Your task to perform on an android device: Search for "acer nitro" on costco, select the first entry, add it to the cart, then select checkout. Image 0: 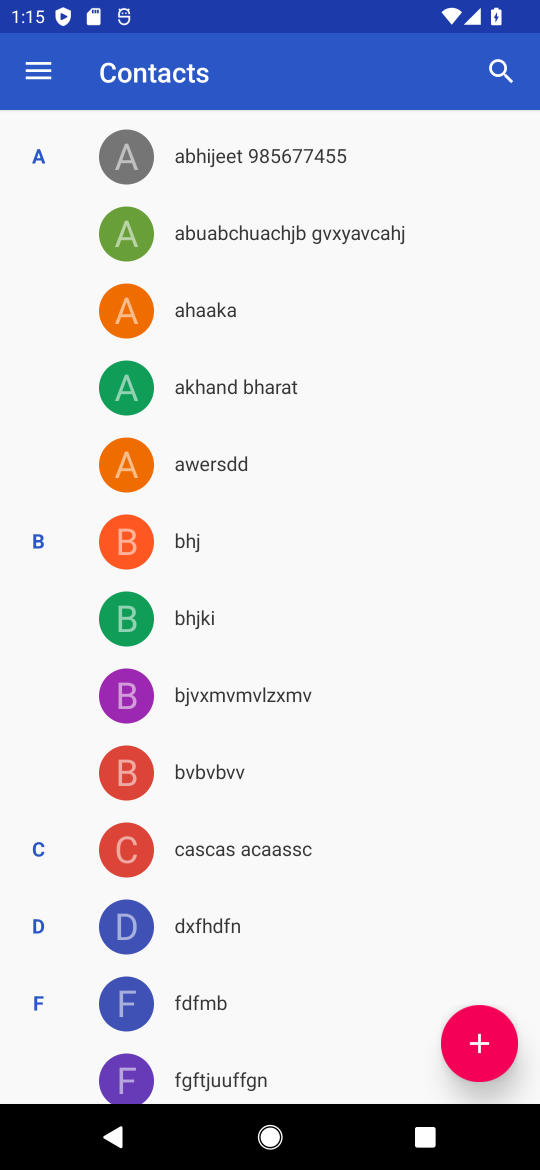
Step 0: press home button
Your task to perform on an android device: Search for "acer nitro" on costco, select the first entry, add it to the cart, then select checkout. Image 1: 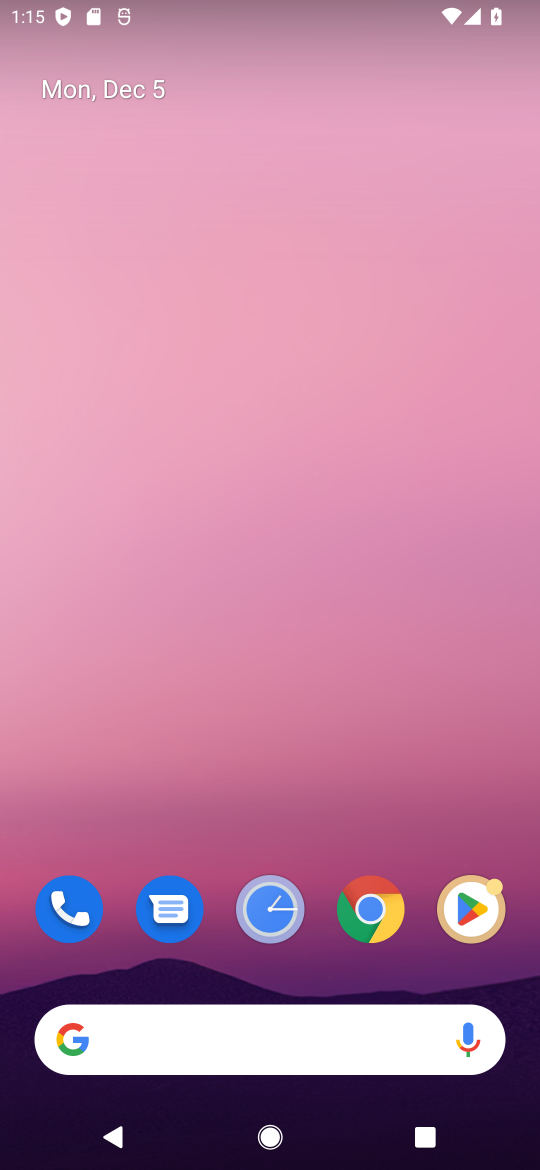
Step 1: drag from (197, 993) to (233, 212)
Your task to perform on an android device: Search for "acer nitro" on costco, select the first entry, add it to the cart, then select checkout. Image 2: 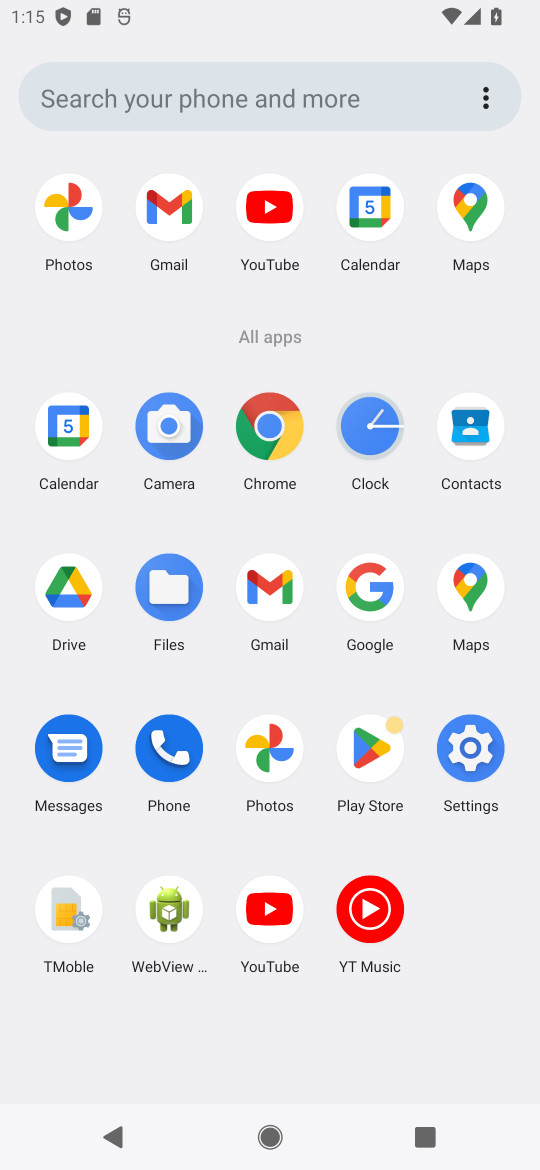
Step 2: click (375, 567)
Your task to perform on an android device: Search for "acer nitro" on costco, select the first entry, add it to the cart, then select checkout. Image 3: 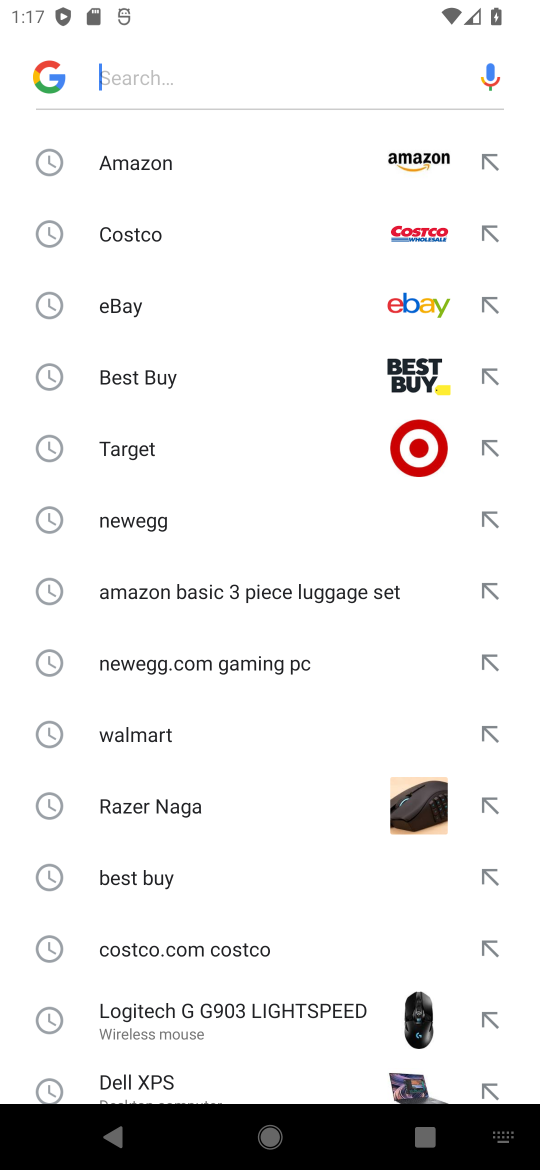
Step 3: click (492, 237)
Your task to perform on an android device: Search for "acer nitro" on costco, select the first entry, add it to the cart, then select checkout. Image 4: 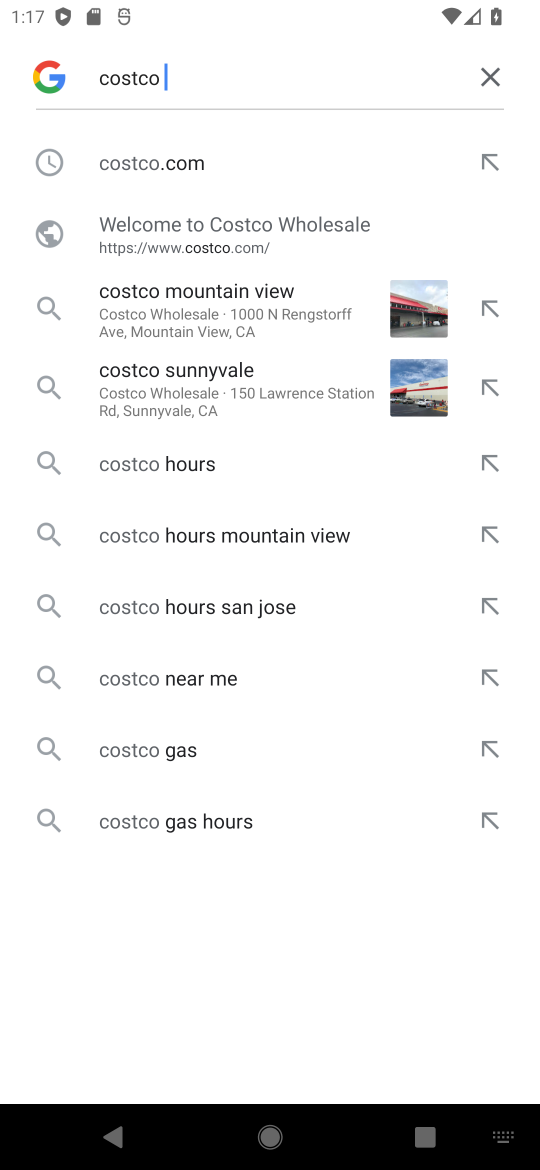
Step 4: click (181, 160)
Your task to perform on an android device: Search for "acer nitro" on costco, select the first entry, add it to the cart, then select checkout. Image 5: 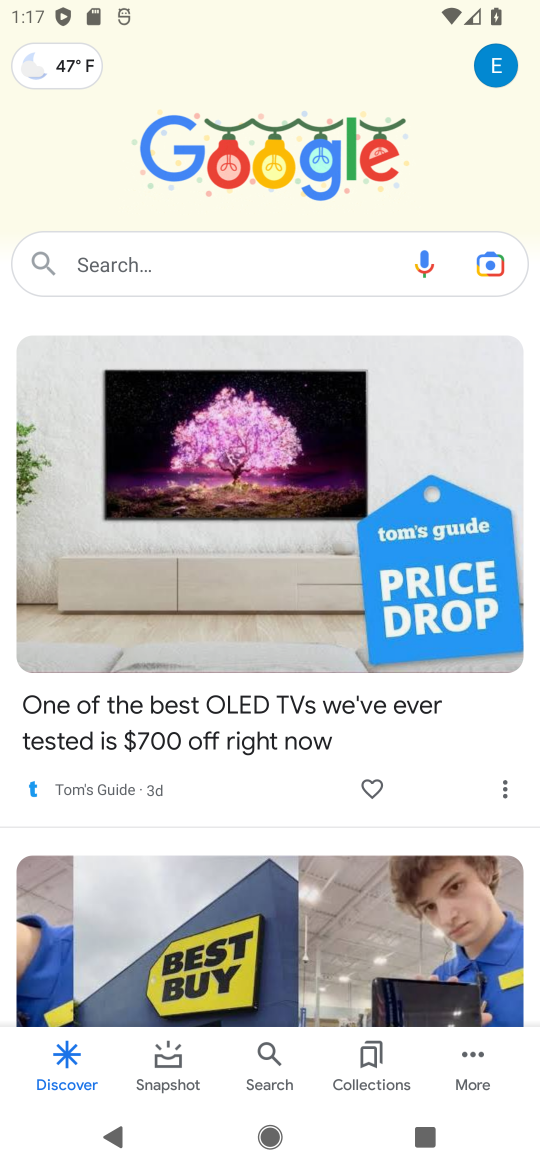
Step 5: click (104, 261)
Your task to perform on an android device: Search for "acer nitro" on costco, select the first entry, add it to the cart, then select checkout. Image 6: 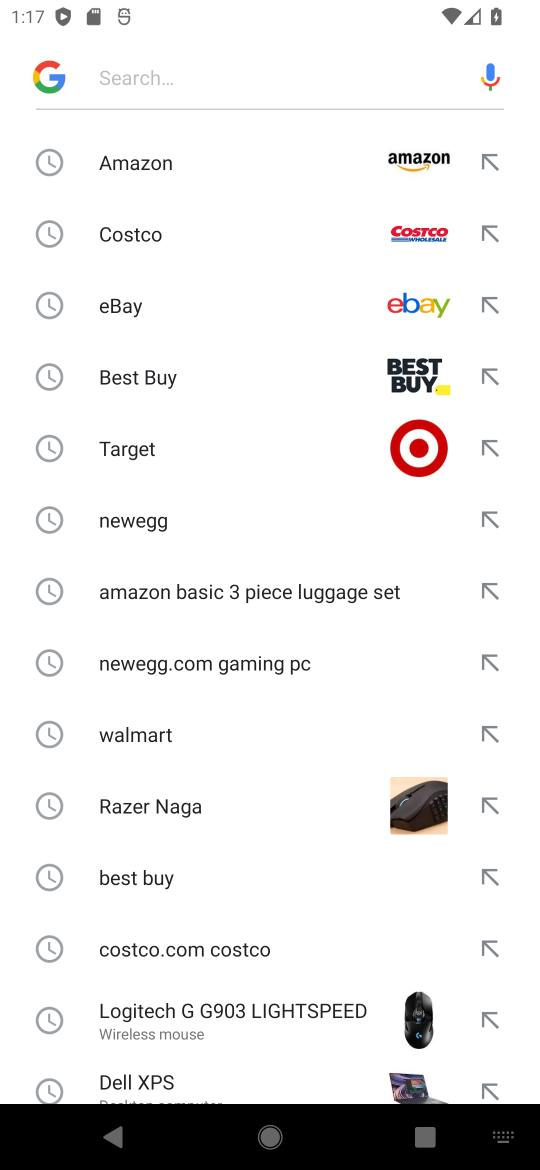
Step 6: click (499, 232)
Your task to perform on an android device: Search for "acer nitro" on costco, select the first entry, add it to the cart, then select checkout. Image 7: 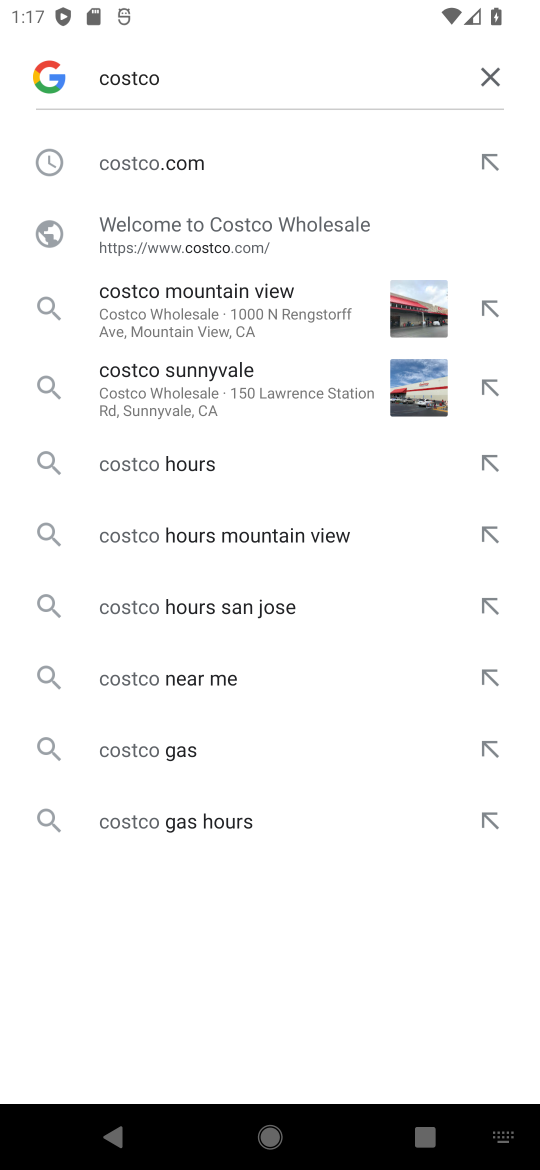
Step 7: click (216, 224)
Your task to perform on an android device: Search for "acer nitro" on costco, select the first entry, add it to the cart, then select checkout. Image 8: 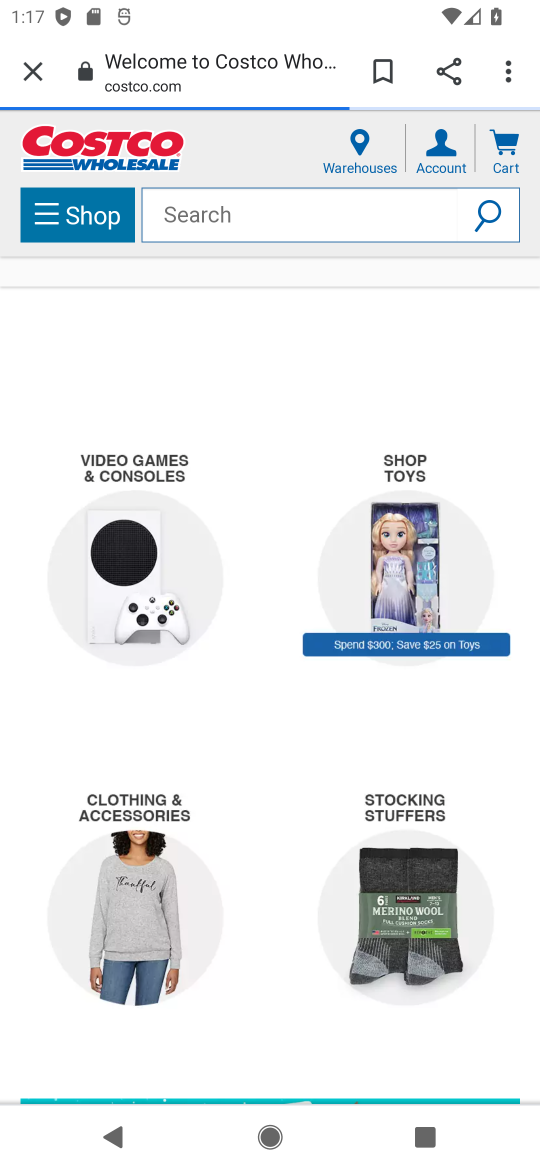
Step 8: click (219, 214)
Your task to perform on an android device: Search for "acer nitro" on costco, select the first entry, add it to the cart, then select checkout. Image 9: 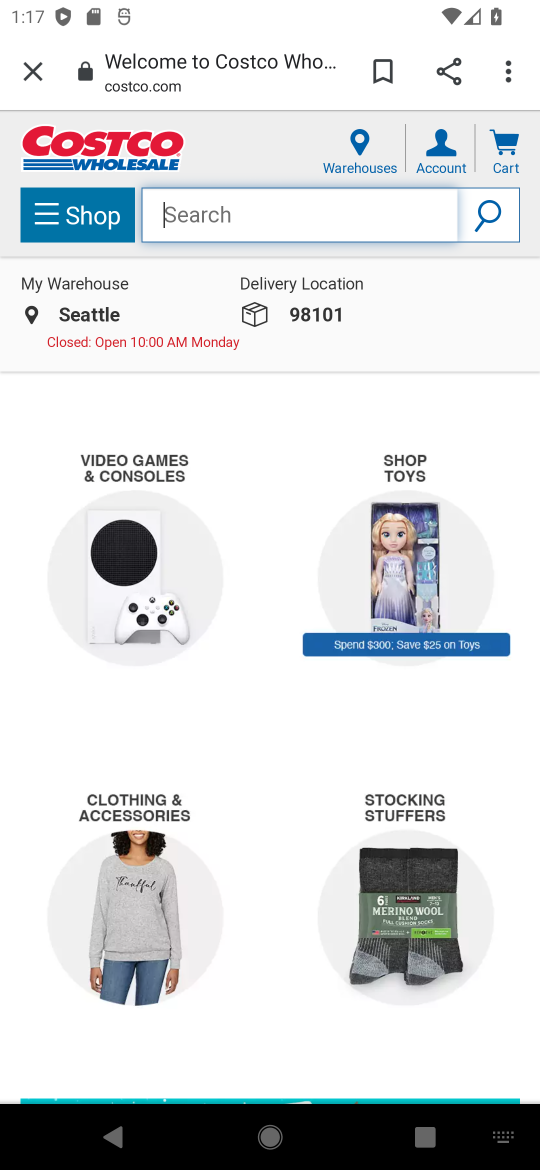
Step 9: type "acer nitro"
Your task to perform on an android device: Search for "acer nitro" on costco, select the first entry, add it to the cart, then select checkout. Image 10: 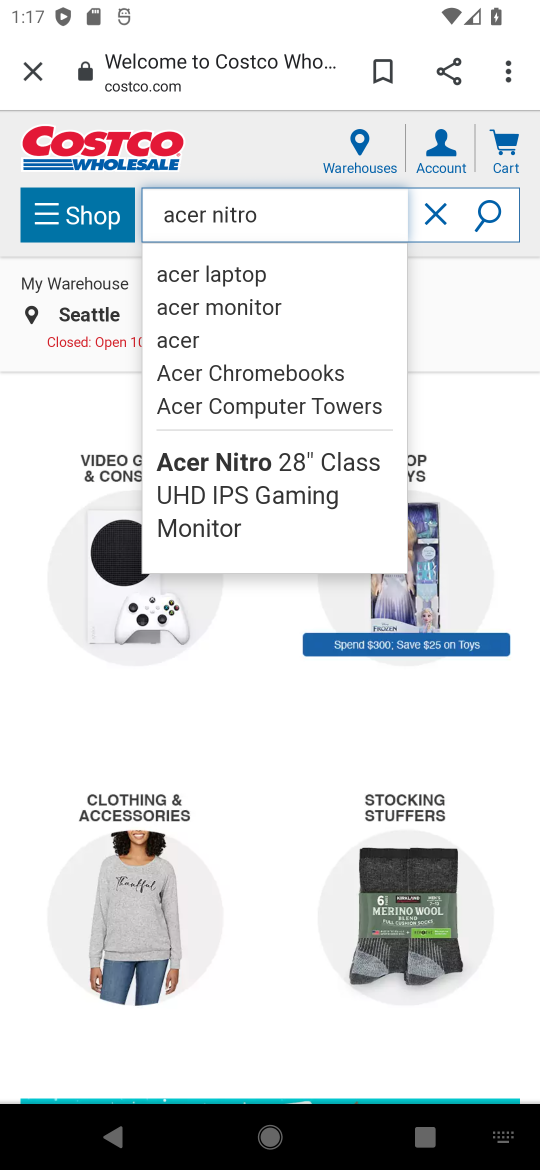
Step 10: click (482, 231)
Your task to perform on an android device: Search for "acer nitro" on costco, select the first entry, add it to the cart, then select checkout. Image 11: 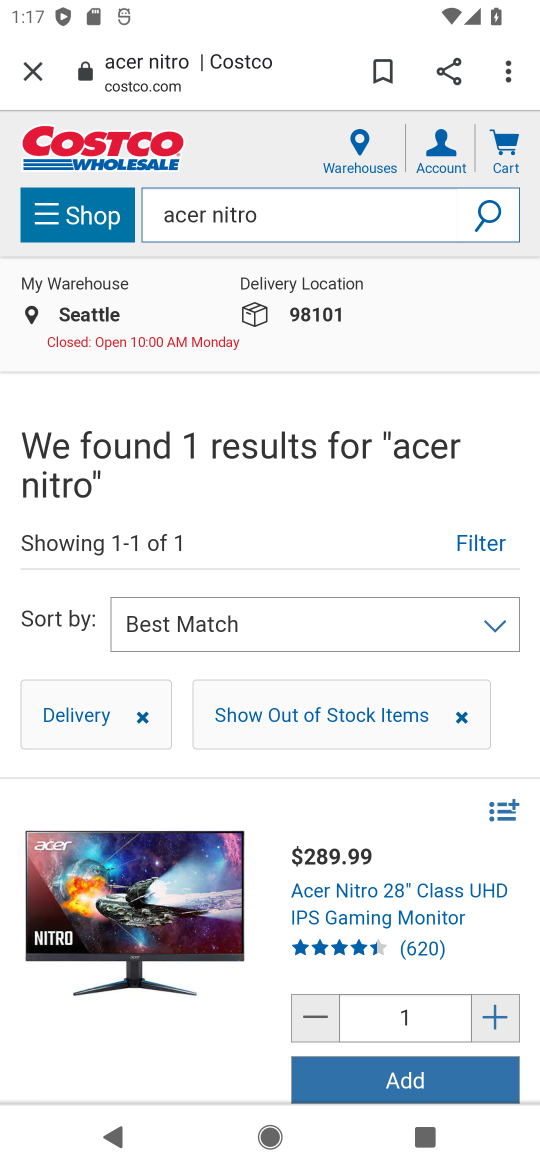
Step 11: click (421, 1088)
Your task to perform on an android device: Search for "acer nitro" on costco, select the first entry, add it to the cart, then select checkout. Image 12: 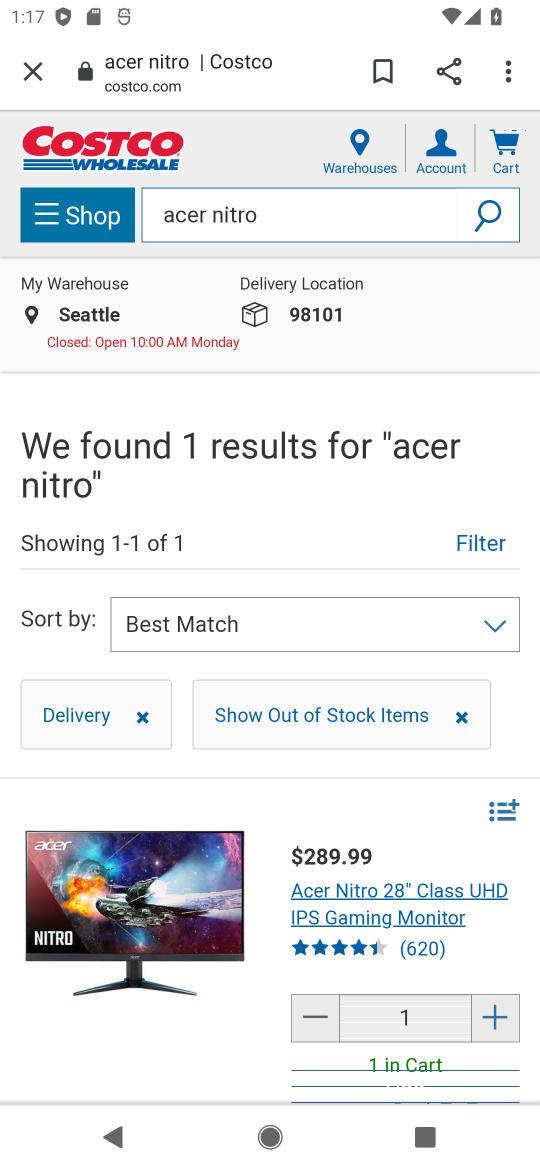
Step 12: drag from (454, 771) to (454, 506)
Your task to perform on an android device: Search for "acer nitro" on costco, select the first entry, add it to the cart, then select checkout. Image 13: 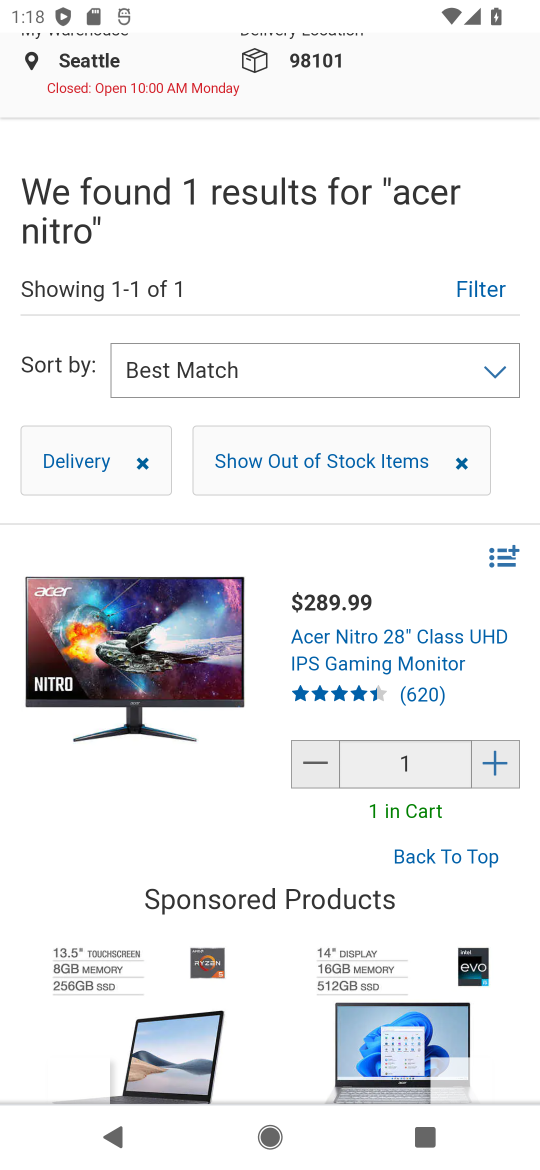
Step 13: drag from (446, 255) to (453, 827)
Your task to perform on an android device: Search for "acer nitro" on costco, select the first entry, add it to the cart, then select checkout. Image 14: 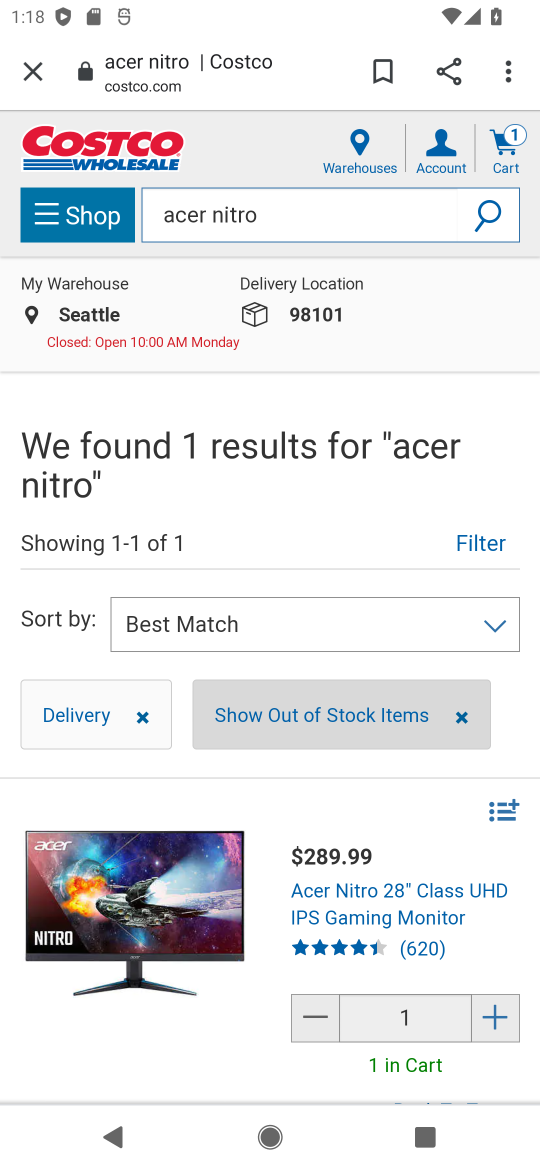
Step 14: click (511, 139)
Your task to perform on an android device: Search for "acer nitro" on costco, select the first entry, add it to the cart, then select checkout. Image 15: 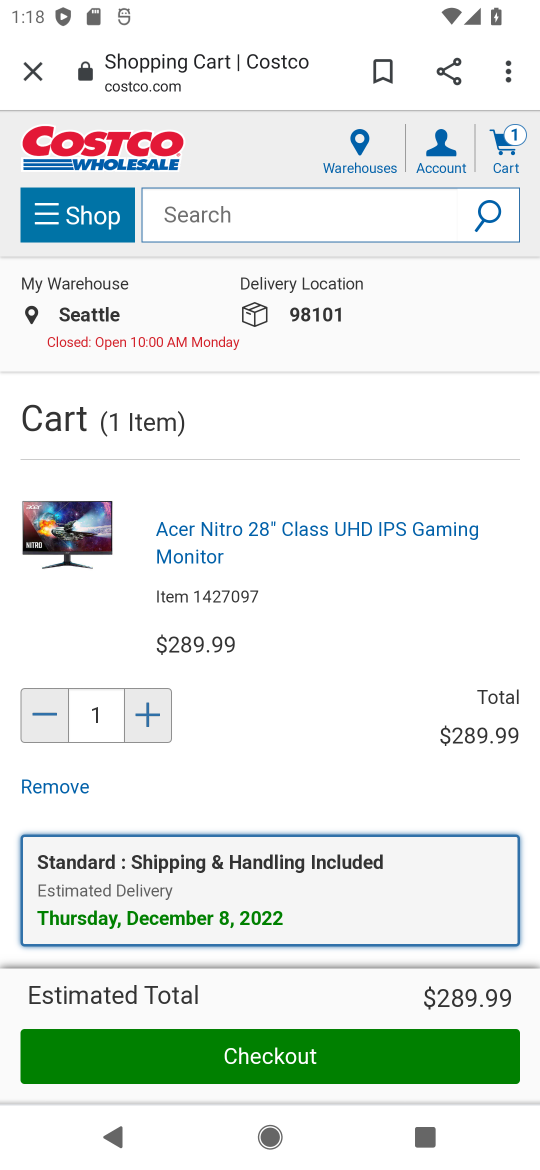
Step 15: click (286, 1066)
Your task to perform on an android device: Search for "acer nitro" on costco, select the first entry, add it to the cart, then select checkout. Image 16: 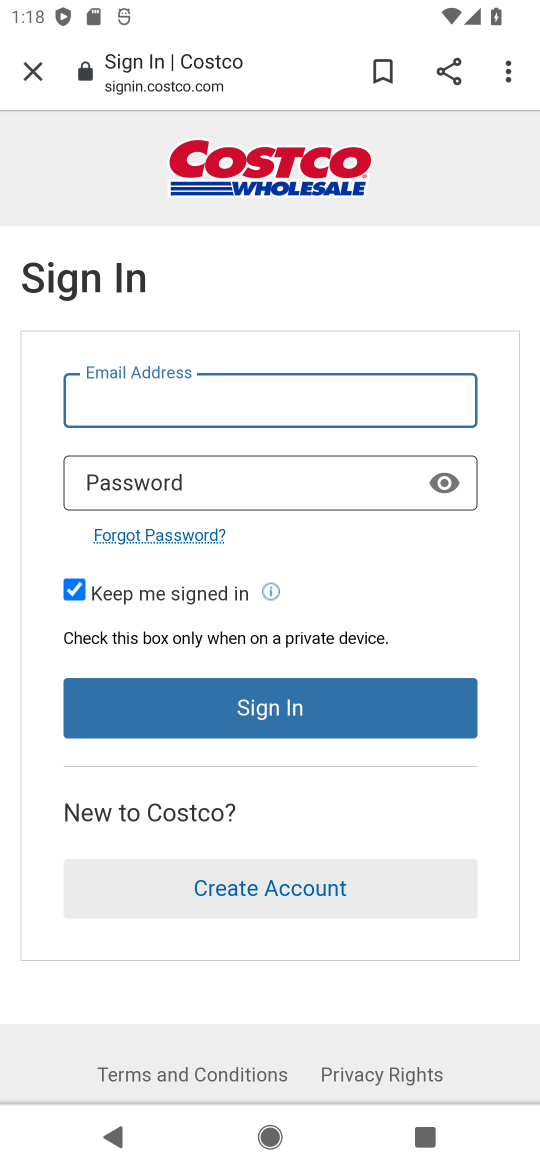
Step 16: task complete